Your task to perform on an android device: toggle data saver in the chrome app Image 0: 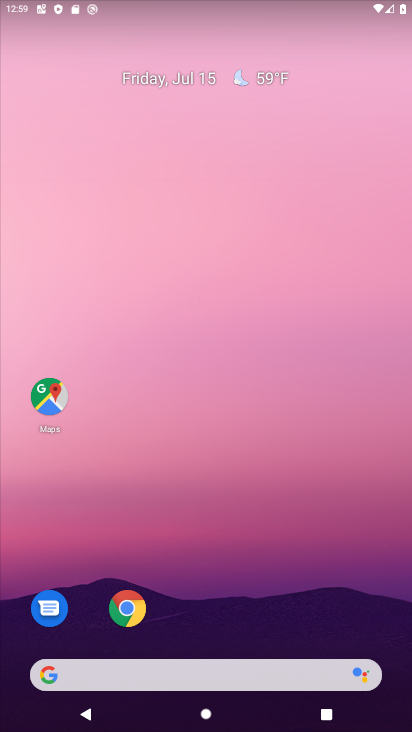
Step 0: click (127, 600)
Your task to perform on an android device: toggle data saver in the chrome app Image 1: 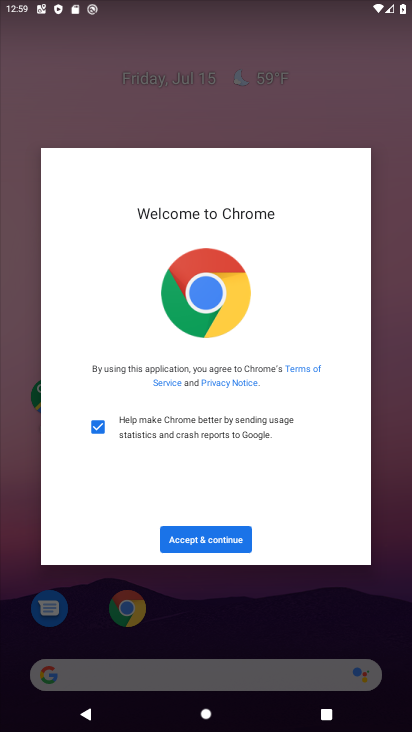
Step 1: click (207, 543)
Your task to perform on an android device: toggle data saver in the chrome app Image 2: 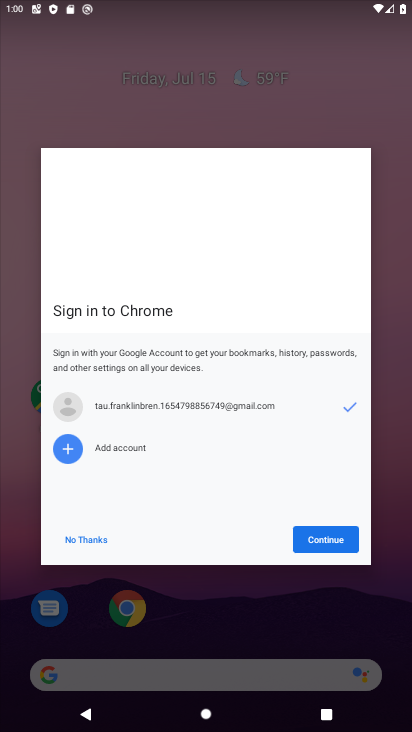
Step 2: click (313, 556)
Your task to perform on an android device: toggle data saver in the chrome app Image 3: 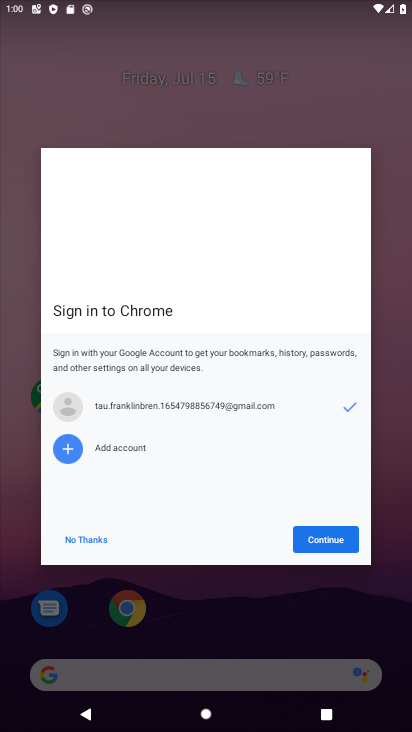
Step 3: click (299, 540)
Your task to perform on an android device: toggle data saver in the chrome app Image 4: 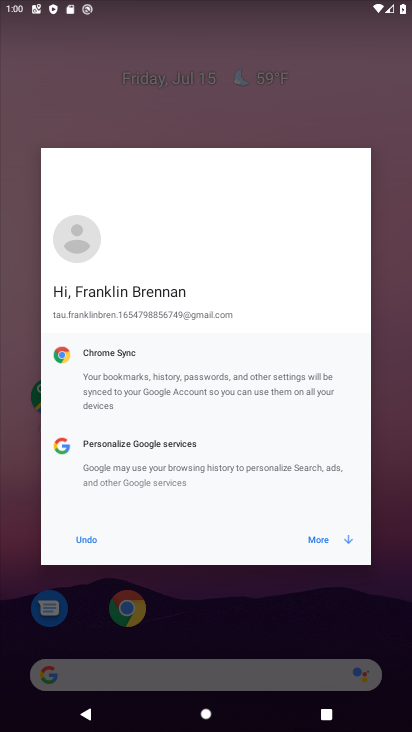
Step 4: click (318, 544)
Your task to perform on an android device: toggle data saver in the chrome app Image 5: 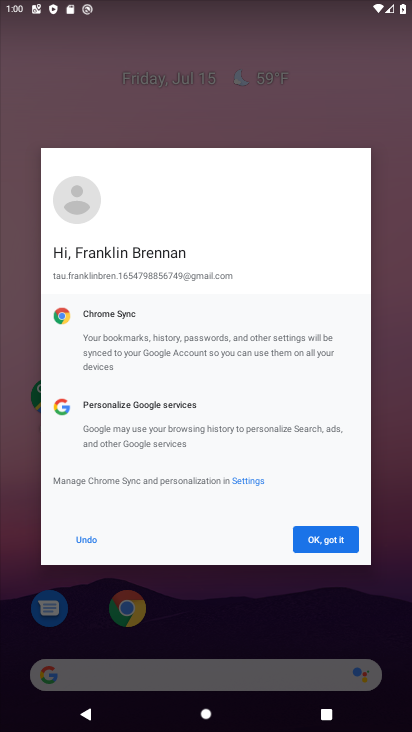
Step 5: click (323, 544)
Your task to perform on an android device: toggle data saver in the chrome app Image 6: 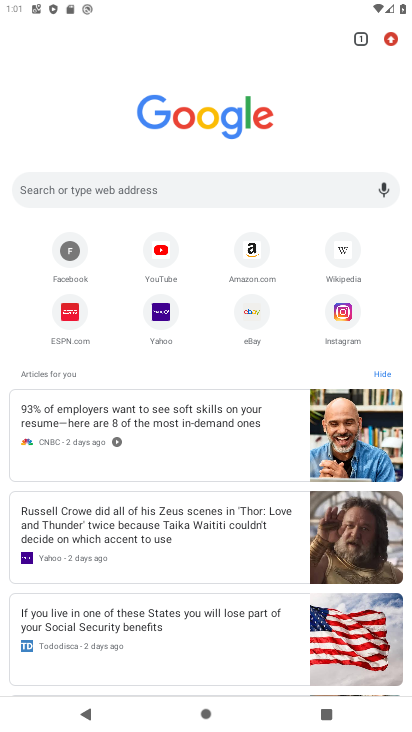
Step 6: click (392, 32)
Your task to perform on an android device: toggle data saver in the chrome app Image 7: 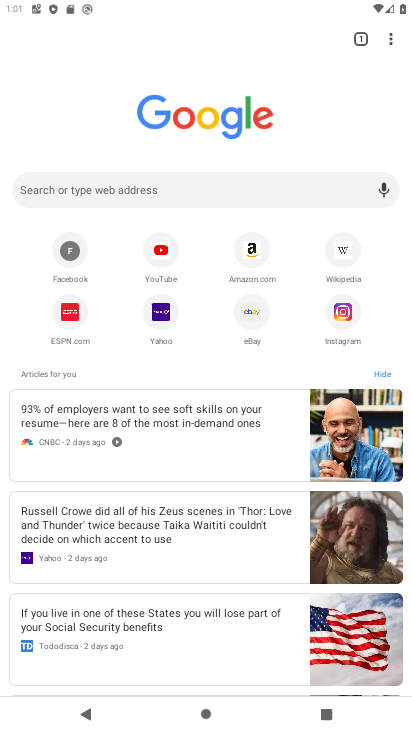
Step 7: click (390, 39)
Your task to perform on an android device: toggle data saver in the chrome app Image 8: 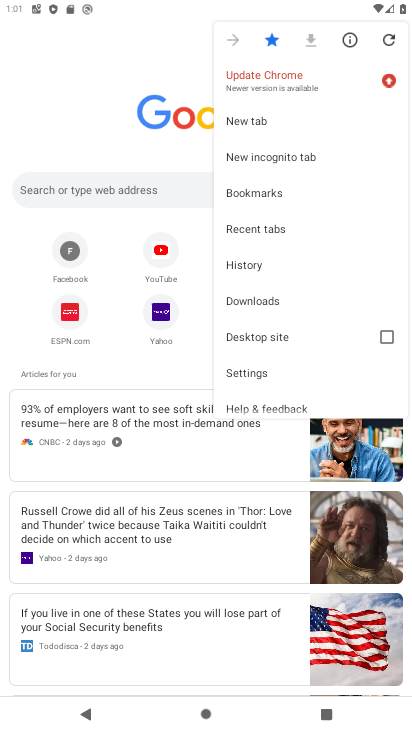
Step 8: click (257, 384)
Your task to perform on an android device: toggle data saver in the chrome app Image 9: 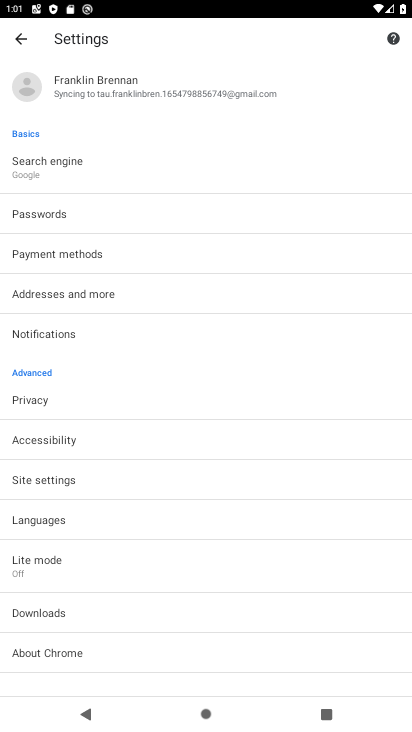
Step 9: click (62, 482)
Your task to perform on an android device: toggle data saver in the chrome app Image 10: 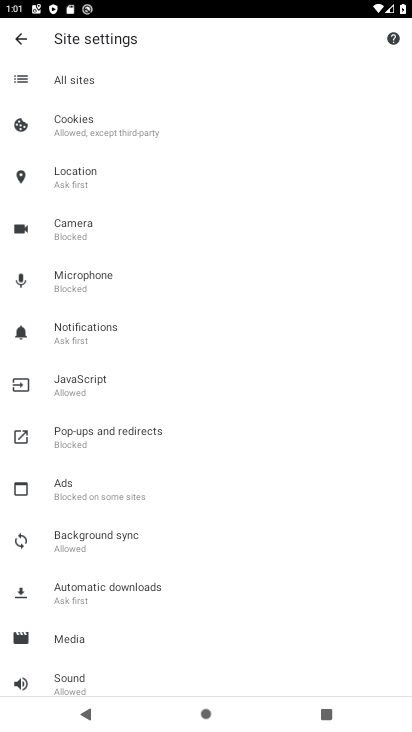
Step 10: click (25, 36)
Your task to perform on an android device: toggle data saver in the chrome app Image 11: 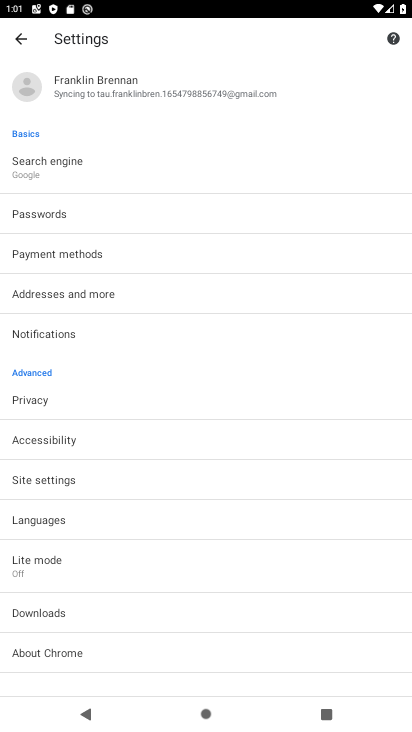
Step 11: click (42, 567)
Your task to perform on an android device: toggle data saver in the chrome app Image 12: 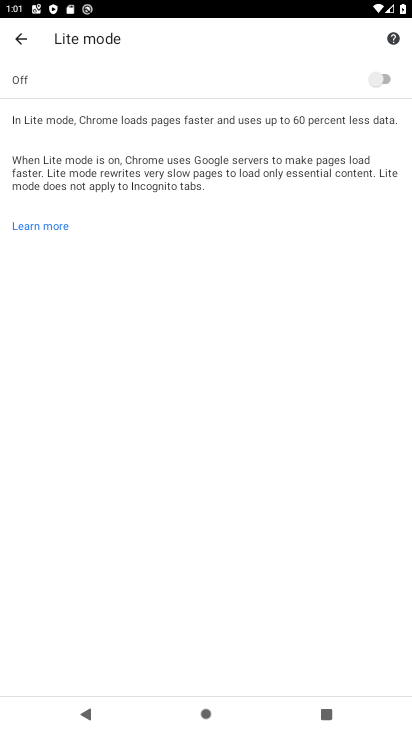
Step 12: click (382, 79)
Your task to perform on an android device: toggle data saver in the chrome app Image 13: 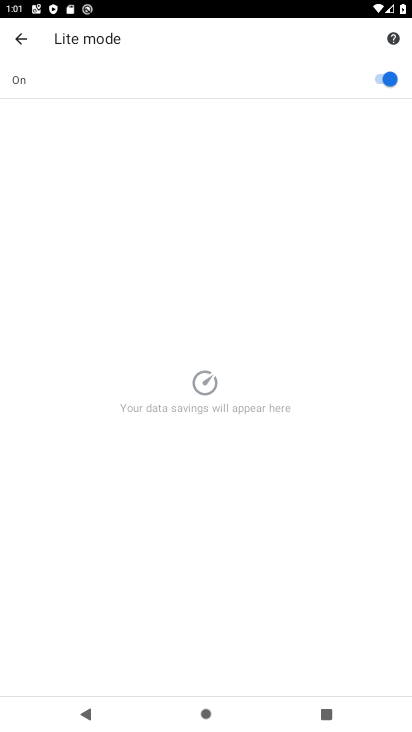
Step 13: task complete